Your task to perform on an android device: turn off notifications settings in the gmail app Image 0: 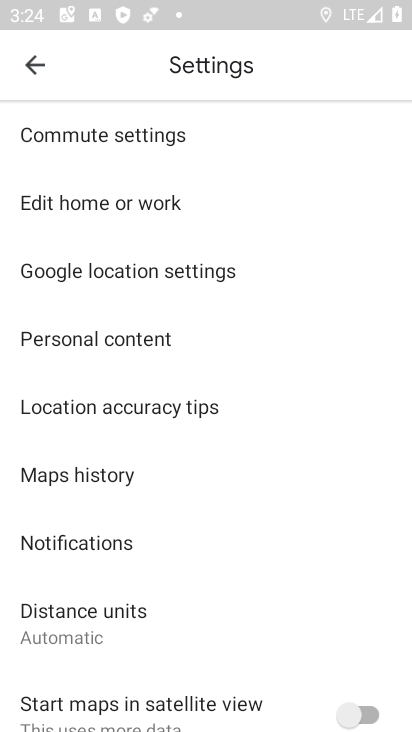
Step 0: press back button
Your task to perform on an android device: turn off notifications settings in the gmail app Image 1: 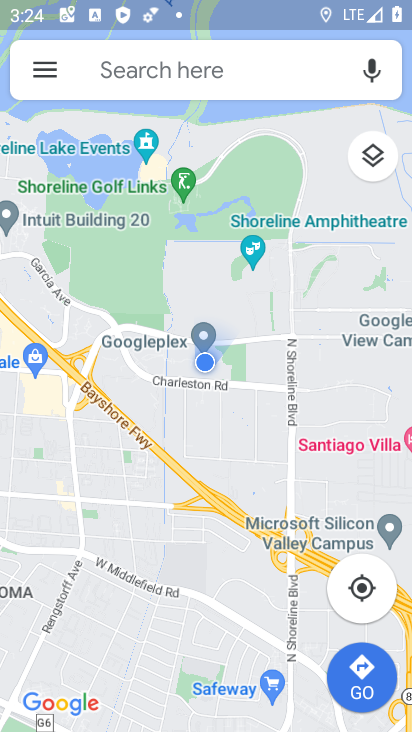
Step 1: press back button
Your task to perform on an android device: turn off notifications settings in the gmail app Image 2: 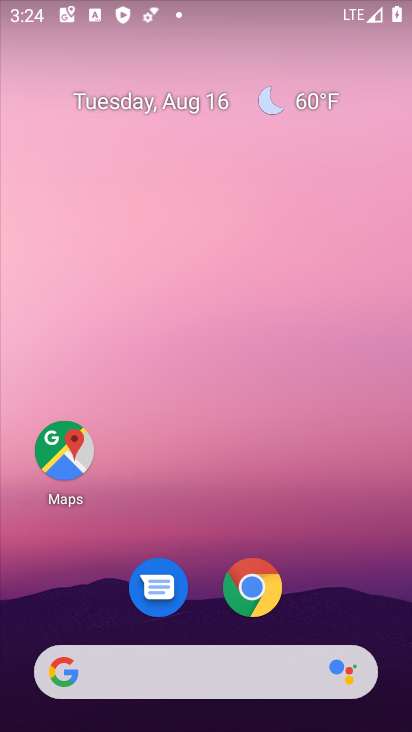
Step 2: drag from (194, 550) to (249, 54)
Your task to perform on an android device: turn off notifications settings in the gmail app Image 3: 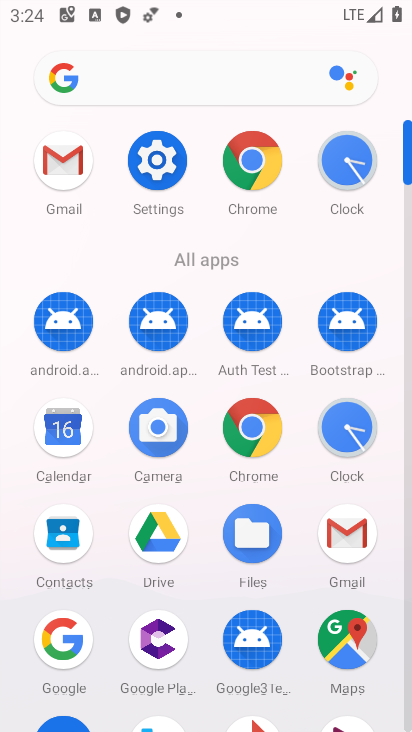
Step 3: click (52, 163)
Your task to perform on an android device: turn off notifications settings in the gmail app Image 4: 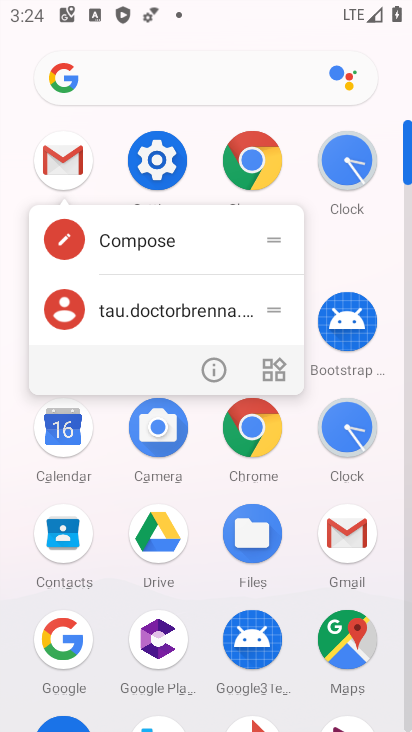
Step 4: click (224, 371)
Your task to perform on an android device: turn off notifications settings in the gmail app Image 5: 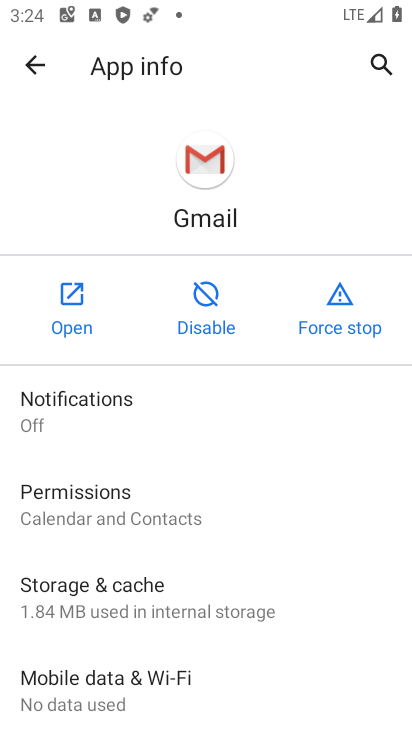
Step 5: click (99, 423)
Your task to perform on an android device: turn off notifications settings in the gmail app Image 6: 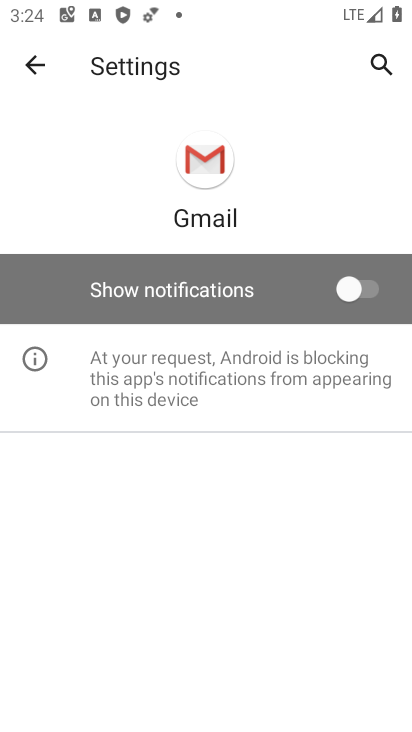
Step 6: task complete